Your task to perform on an android device: Show me popular videos on Youtube Image 0: 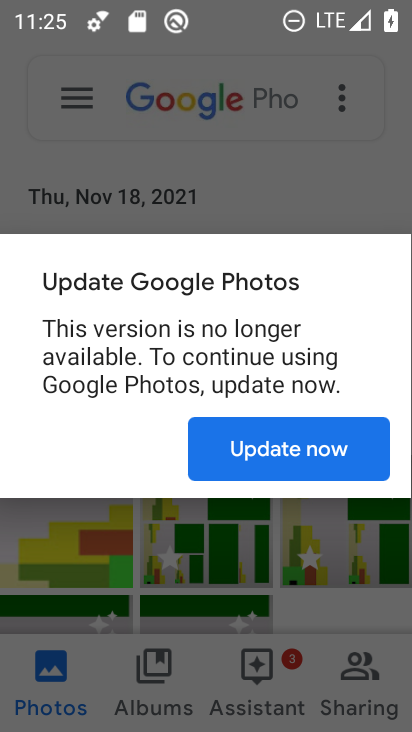
Step 0: press home button
Your task to perform on an android device: Show me popular videos on Youtube Image 1: 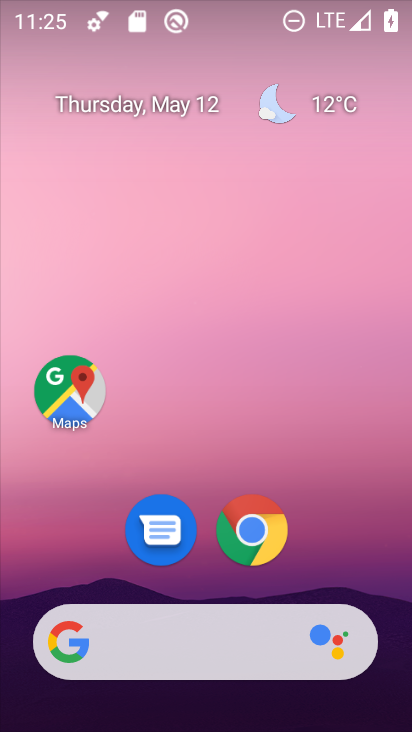
Step 1: drag from (199, 635) to (311, 5)
Your task to perform on an android device: Show me popular videos on Youtube Image 2: 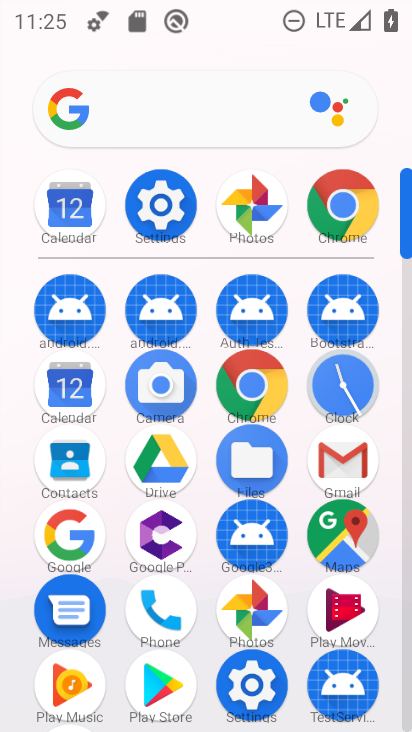
Step 2: drag from (204, 630) to (379, 213)
Your task to perform on an android device: Show me popular videos on Youtube Image 3: 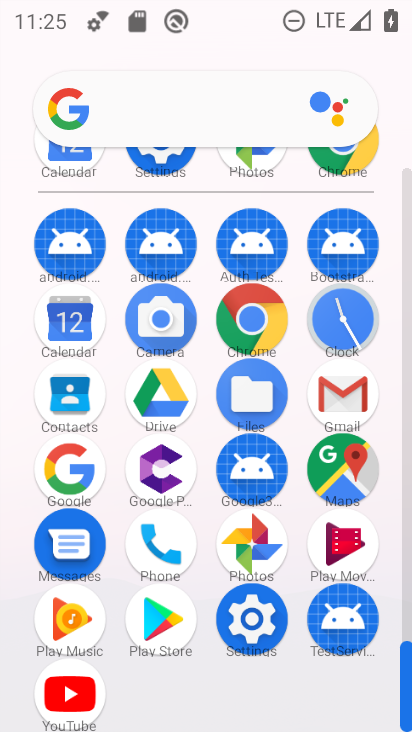
Step 3: click (66, 694)
Your task to perform on an android device: Show me popular videos on Youtube Image 4: 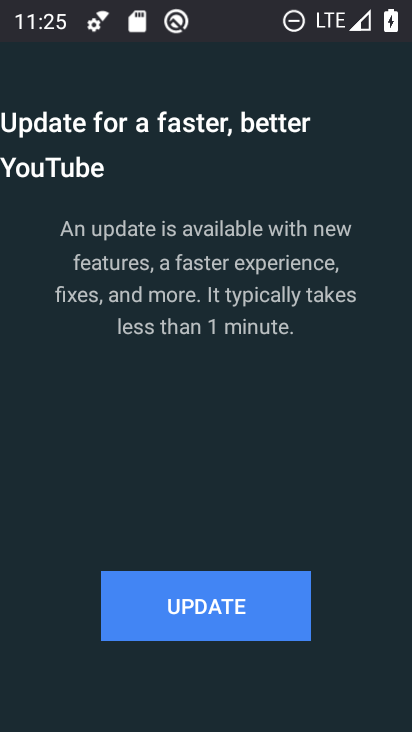
Step 4: click (170, 612)
Your task to perform on an android device: Show me popular videos on Youtube Image 5: 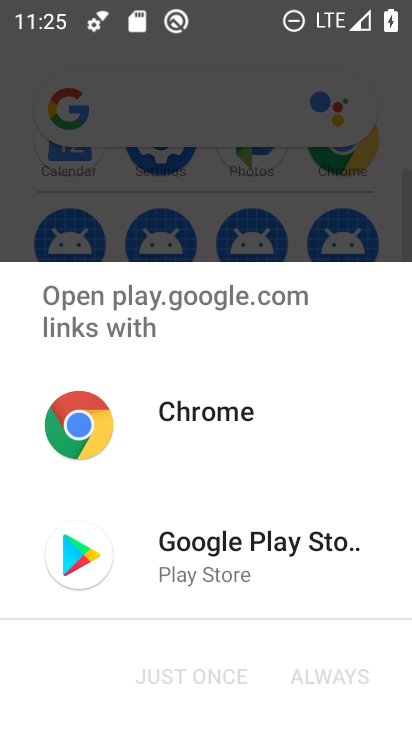
Step 5: click (209, 559)
Your task to perform on an android device: Show me popular videos on Youtube Image 6: 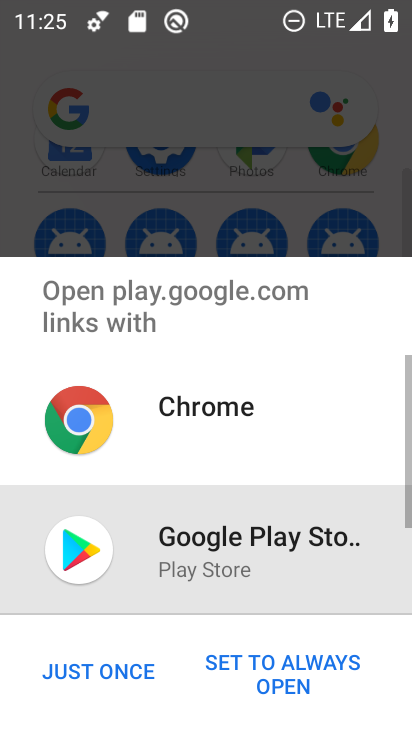
Step 6: click (118, 678)
Your task to perform on an android device: Show me popular videos on Youtube Image 7: 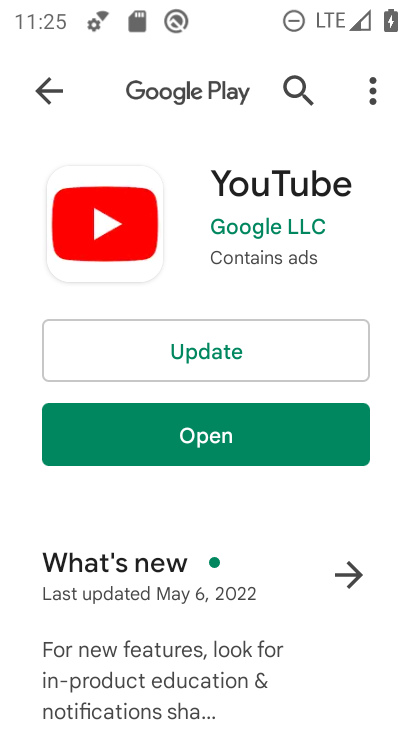
Step 7: click (191, 353)
Your task to perform on an android device: Show me popular videos on Youtube Image 8: 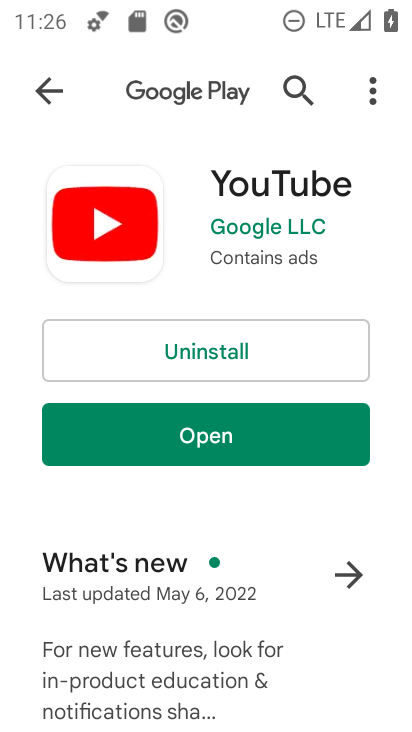
Step 8: click (211, 437)
Your task to perform on an android device: Show me popular videos on Youtube Image 9: 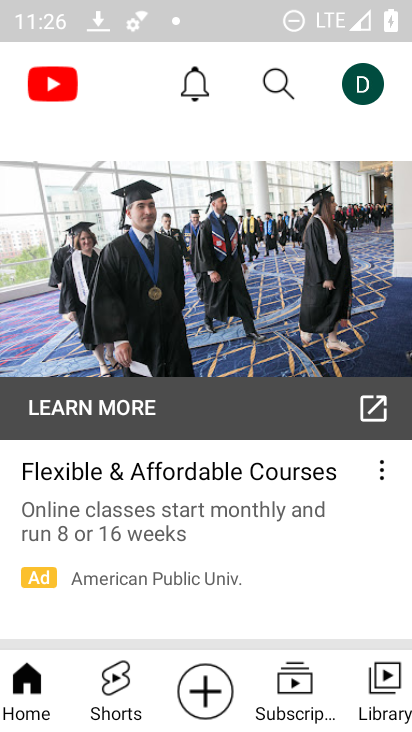
Step 9: task complete